Your task to perform on an android device: Show me recent news Image 0: 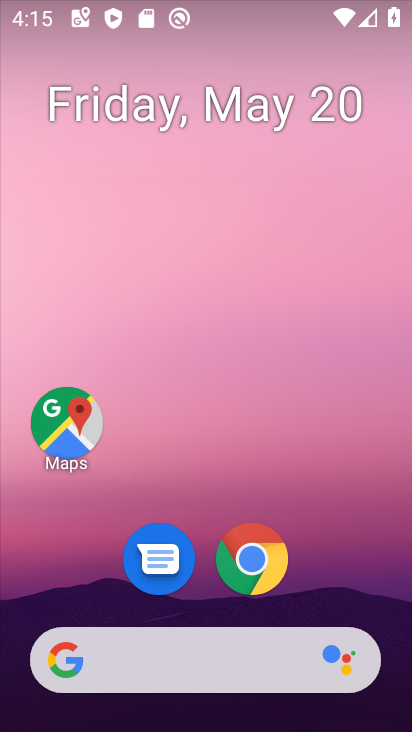
Step 0: drag from (189, 630) to (212, 229)
Your task to perform on an android device: Show me recent news Image 1: 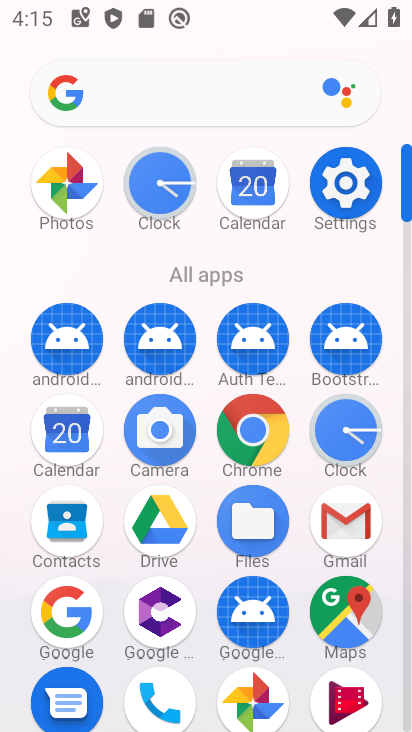
Step 1: drag from (211, 643) to (202, 307)
Your task to perform on an android device: Show me recent news Image 2: 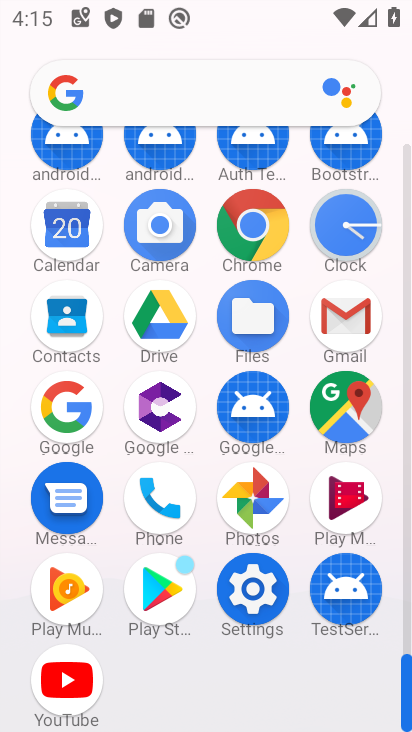
Step 2: click (74, 410)
Your task to perform on an android device: Show me recent news Image 3: 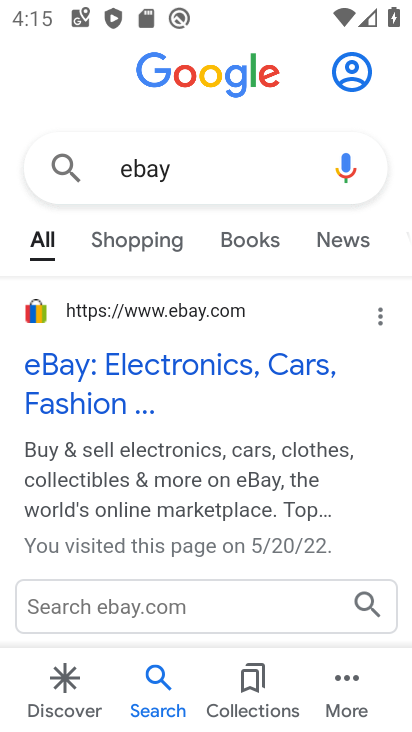
Step 3: click (192, 159)
Your task to perform on an android device: Show me recent news Image 4: 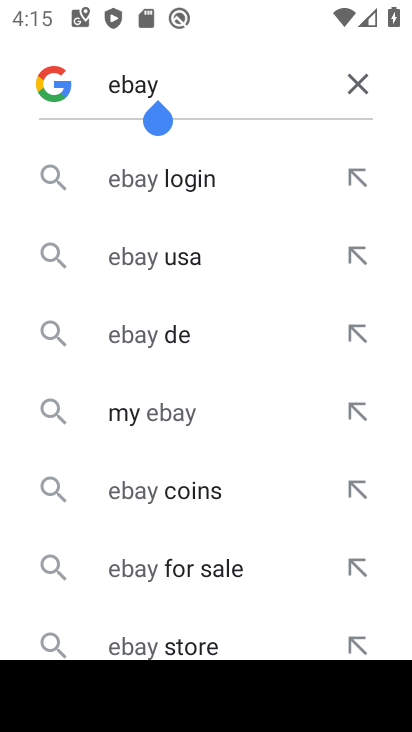
Step 4: drag from (182, 582) to (182, 245)
Your task to perform on an android device: Show me recent news Image 5: 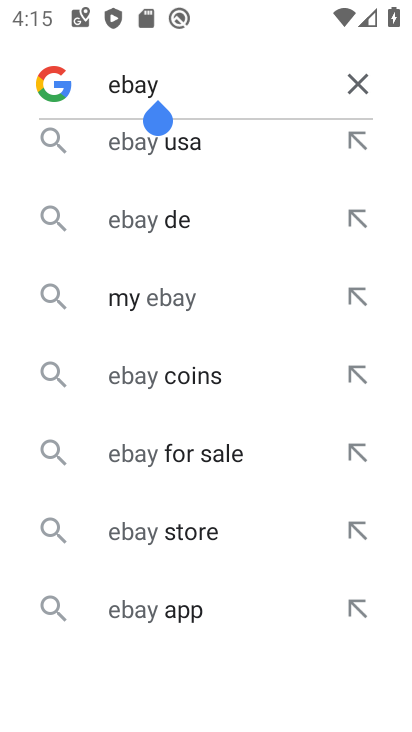
Step 5: drag from (175, 620) to (178, 265)
Your task to perform on an android device: Show me recent news Image 6: 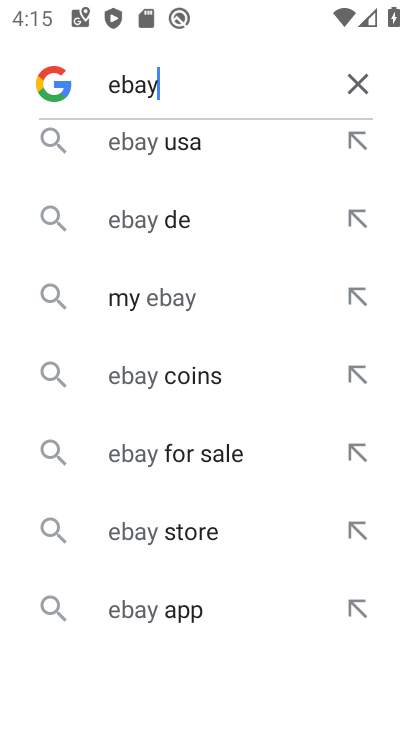
Step 6: click (358, 77)
Your task to perform on an android device: Show me recent news Image 7: 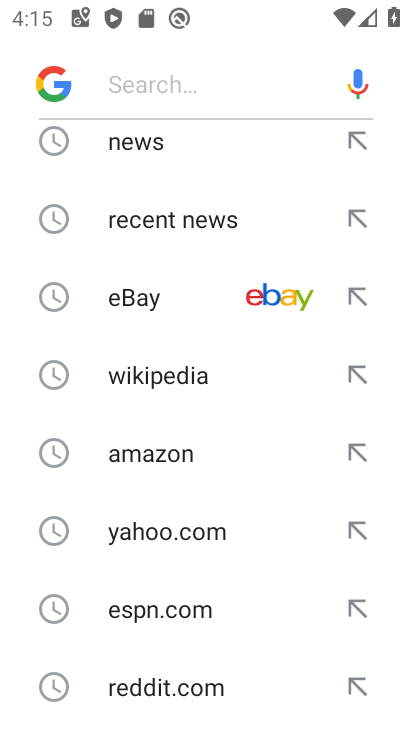
Step 7: click (178, 219)
Your task to perform on an android device: Show me recent news Image 8: 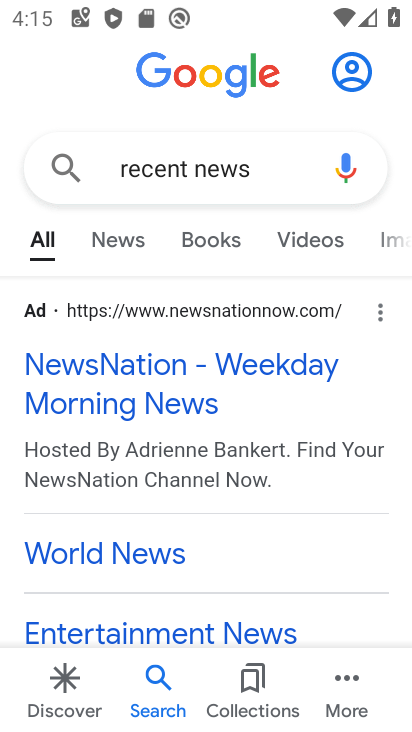
Step 8: task complete